Your task to perform on an android device: manage bookmarks in the chrome app Image 0: 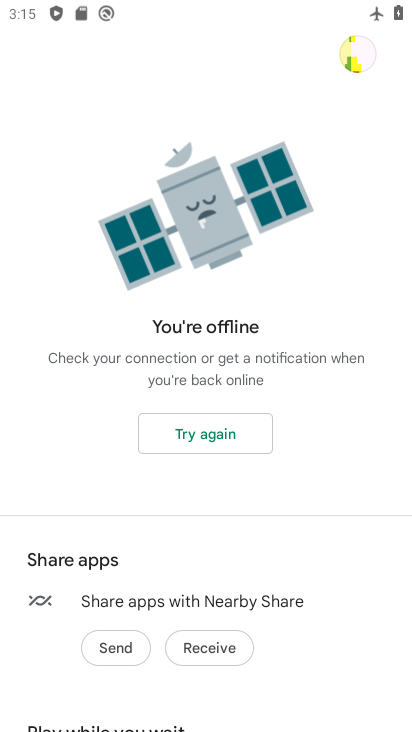
Step 0: press home button
Your task to perform on an android device: manage bookmarks in the chrome app Image 1: 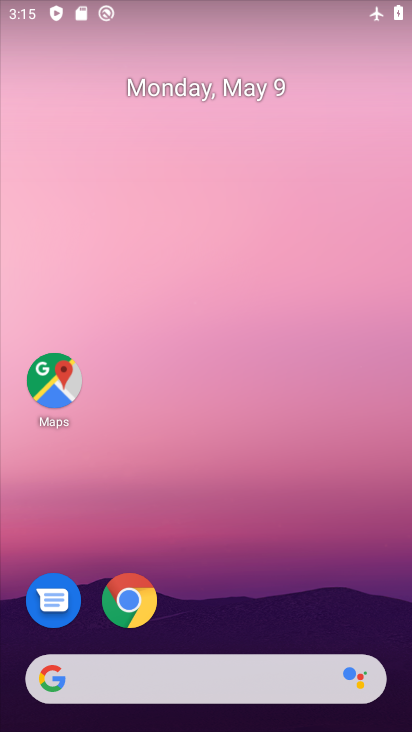
Step 1: click (148, 604)
Your task to perform on an android device: manage bookmarks in the chrome app Image 2: 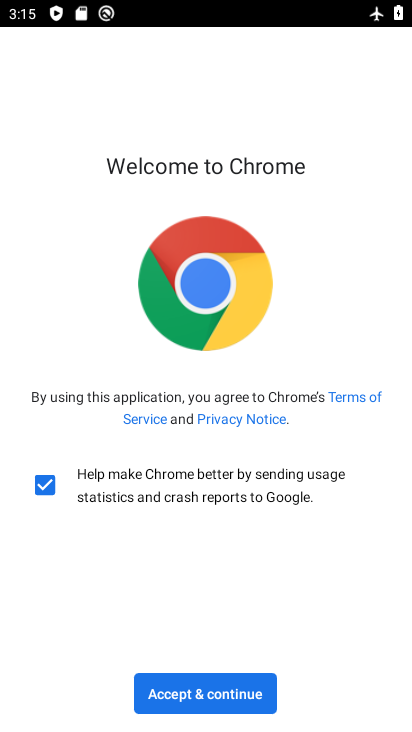
Step 2: click (195, 696)
Your task to perform on an android device: manage bookmarks in the chrome app Image 3: 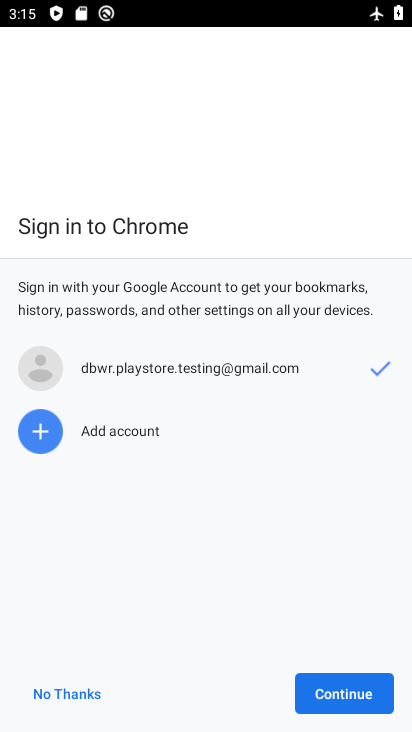
Step 3: click (371, 699)
Your task to perform on an android device: manage bookmarks in the chrome app Image 4: 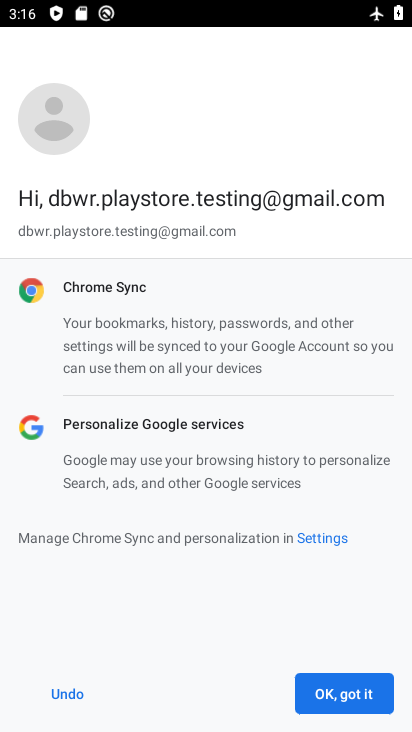
Step 4: click (367, 703)
Your task to perform on an android device: manage bookmarks in the chrome app Image 5: 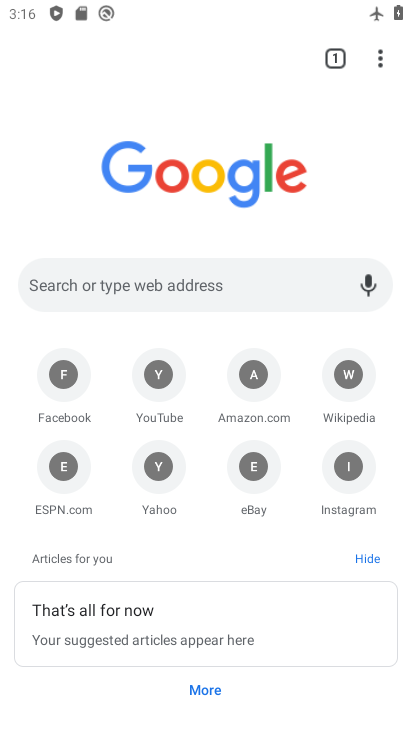
Step 5: click (381, 71)
Your task to perform on an android device: manage bookmarks in the chrome app Image 6: 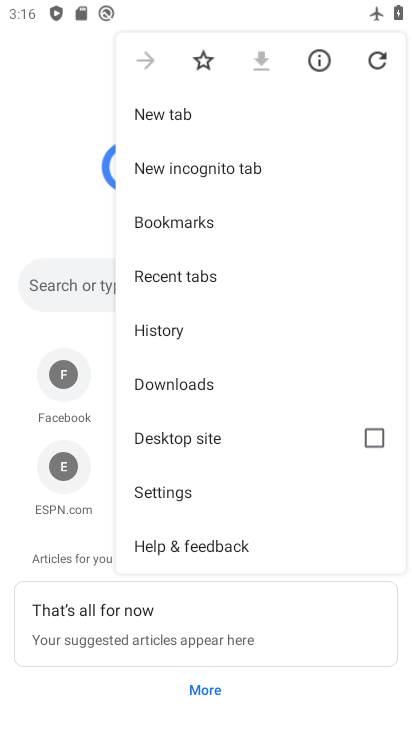
Step 6: click (175, 233)
Your task to perform on an android device: manage bookmarks in the chrome app Image 7: 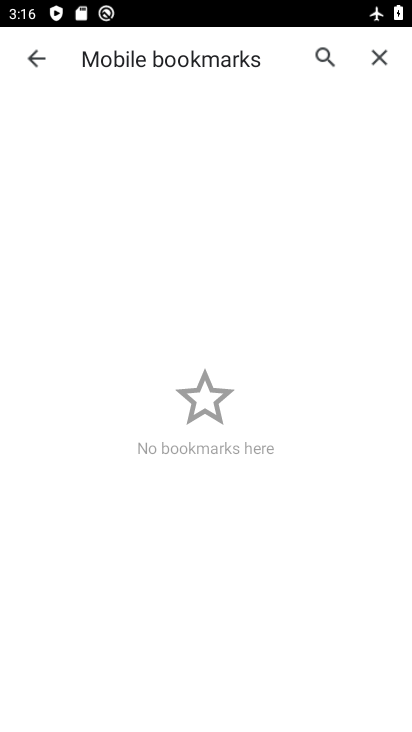
Step 7: task complete